Your task to perform on an android device: stop showing notifications on the lock screen Image 0: 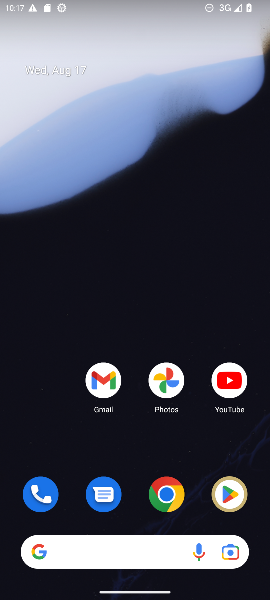
Step 0: drag from (142, 461) to (154, 50)
Your task to perform on an android device: stop showing notifications on the lock screen Image 1: 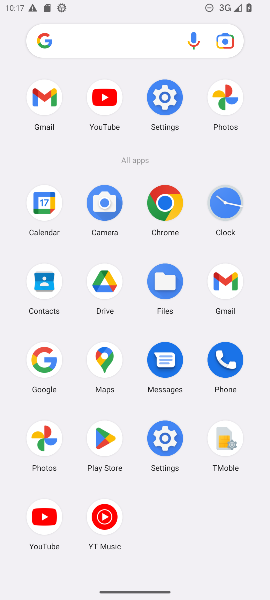
Step 1: click (164, 439)
Your task to perform on an android device: stop showing notifications on the lock screen Image 2: 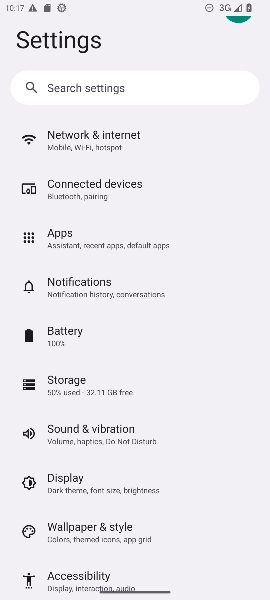
Step 2: click (91, 284)
Your task to perform on an android device: stop showing notifications on the lock screen Image 3: 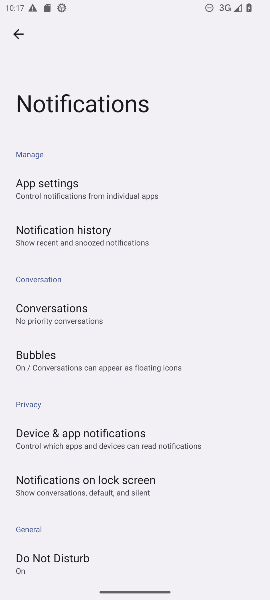
Step 3: drag from (132, 513) to (118, 205)
Your task to perform on an android device: stop showing notifications on the lock screen Image 4: 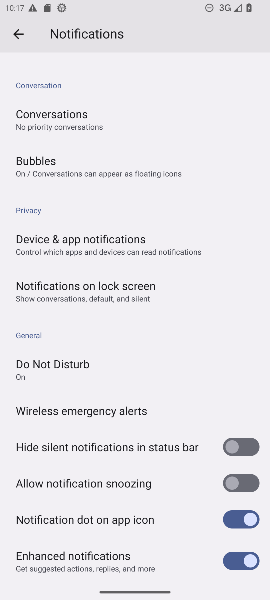
Step 4: click (90, 292)
Your task to perform on an android device: stop showing notifications on the lock screen Image 5: 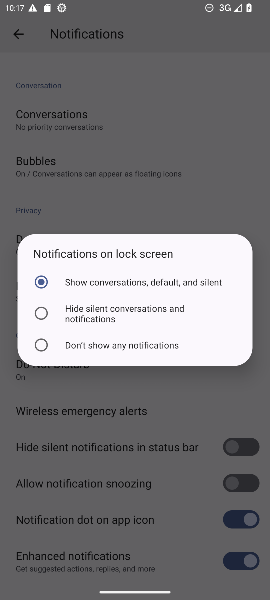
Step 5: click (106, 341)
Your task to perform on an android device: stop showing notifications on the lock screen Image 6: 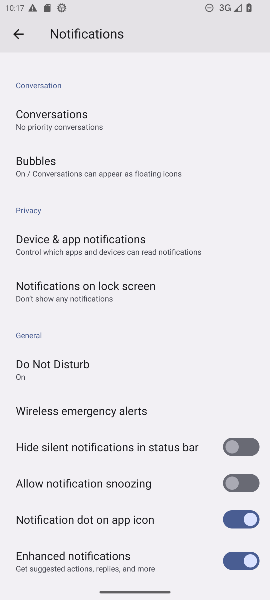
Step 6: task complete